Your task to perform on an android device: Show me recent news Image 0: 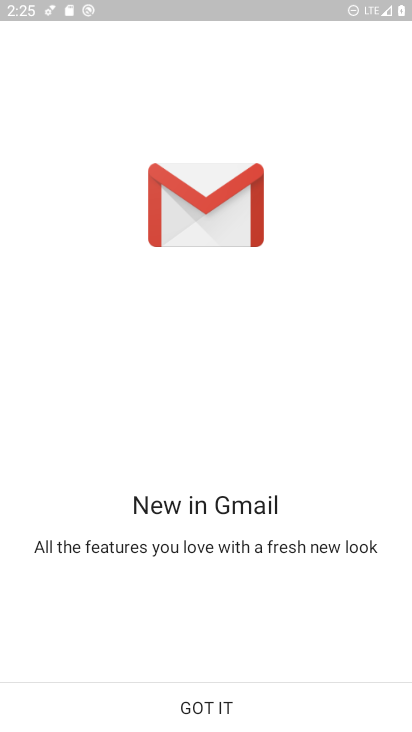
Step 0: press home button
Your task to perform on an android device: Show me recent news Image 1: 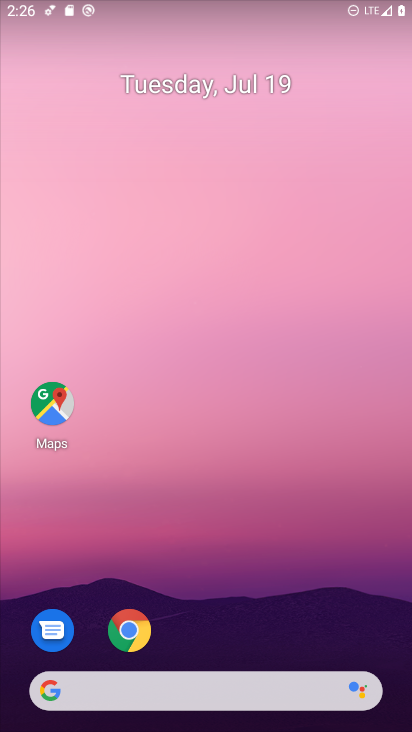
Step 1: task complete